Your task to perform on an android device: see creations saved in the google photos Image 0: 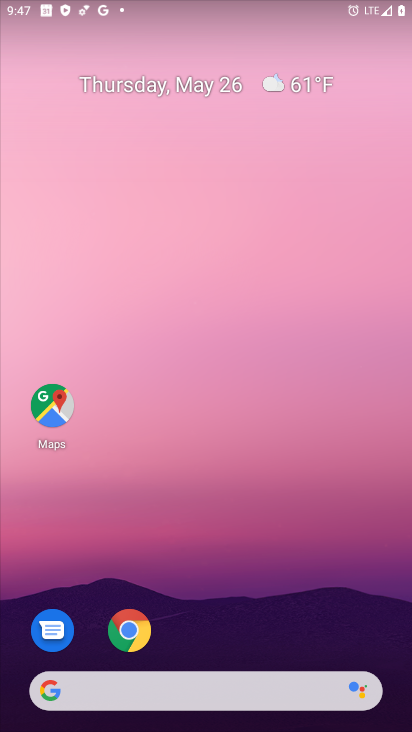
Step 0: drag from (213, 647) to (212, 11)
Your task to perform on an android device: see creations saved in the google photos Image 1: 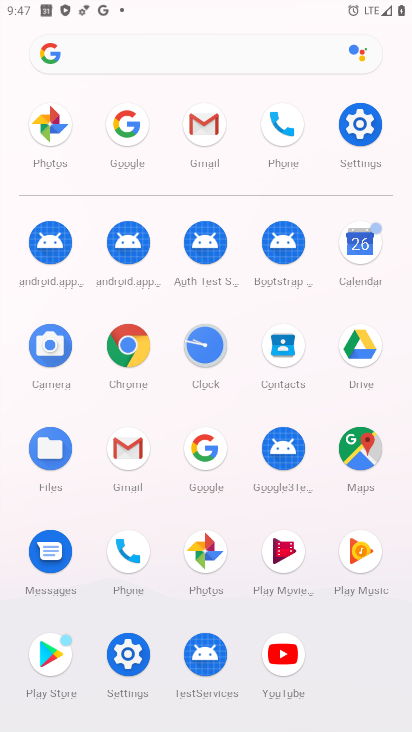
Step 1: click (214, 549)
Your task to perform on an android device: see creations saved in the google photos Image 2: 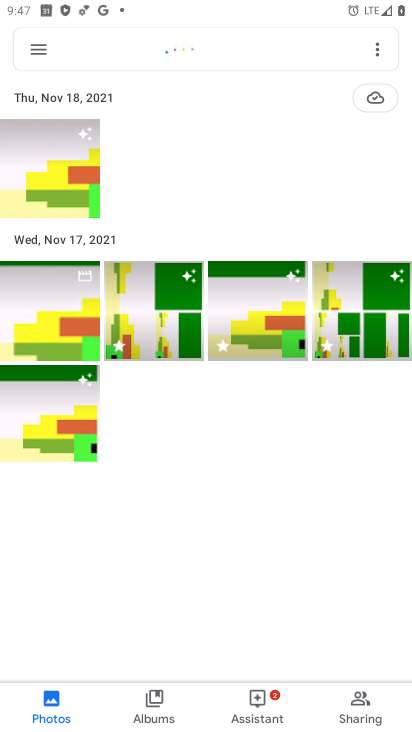
Step 2: click (186, 33)
Your task to perform on an android device: see creations saved in the google photos Image 3: 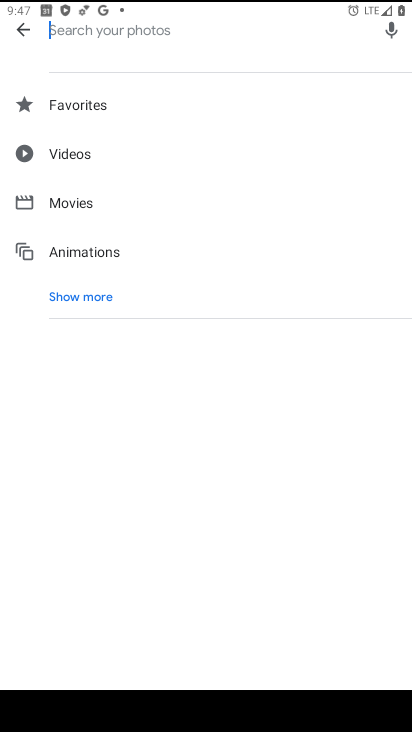
Step 3: click (89, 292)
Your task to perform on an android device: see creations saved in the google photos Image 4: 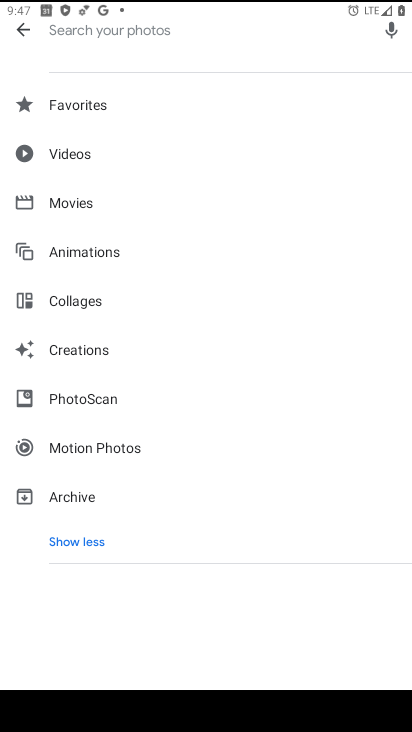
Step 4: click (80, 347)
Your task to perform on an android device: see creations saved in the google photos Image 5: 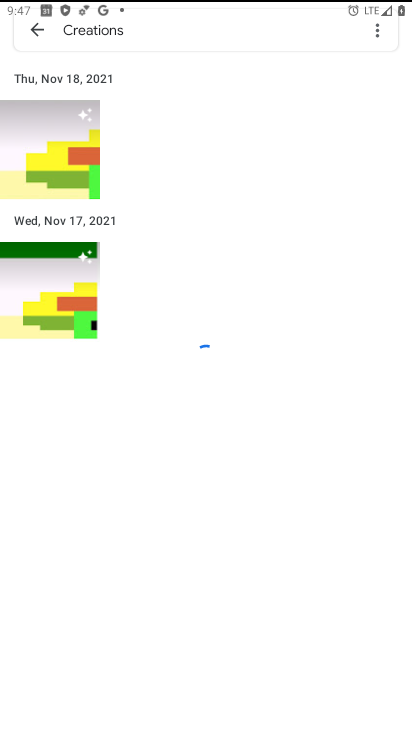
Step 5: task complete